Your task to perform on an android device: Go to Google Image 0: 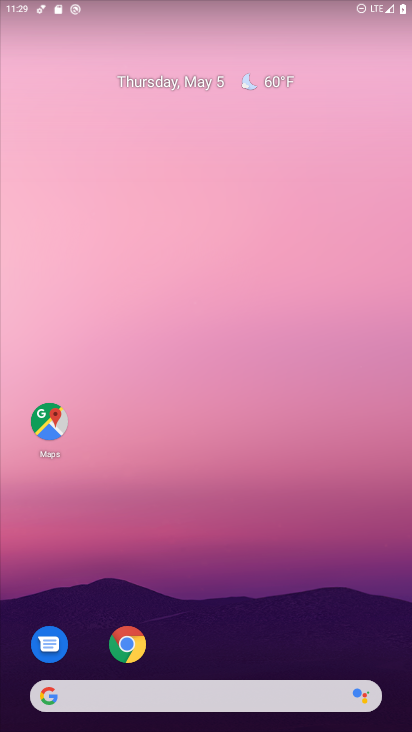
Step 0: drag from (361, 614) to (389, 249)
Your task to perform on an android device: Go to Google Image 1: 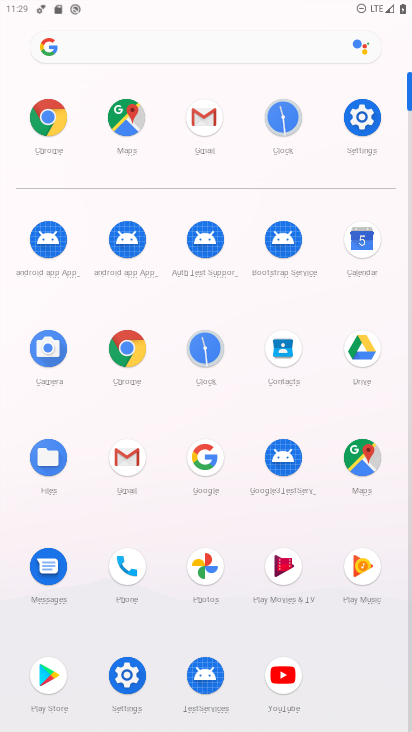
Step 1: click (212, 467)
Your task to perform on an android device: Go to Google Image 2: 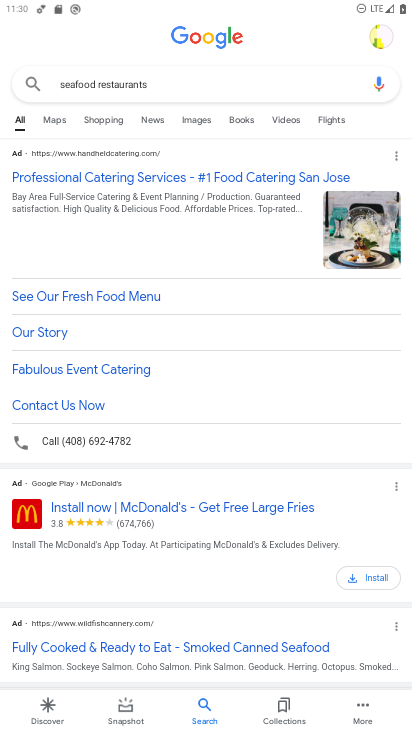
Step 2: task complete